Your task to perform on an android device: see tabs open on other devices in the chrome app Image 0: 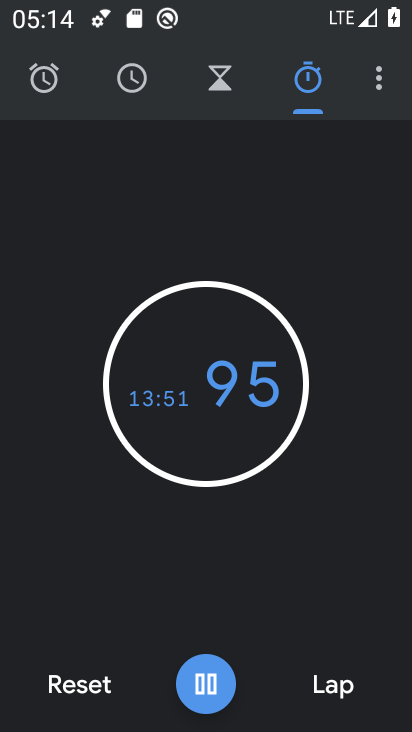
Step 0: press home button
Your task to perform on an android device: see tabs open on other devices in the chrome app Image 1: 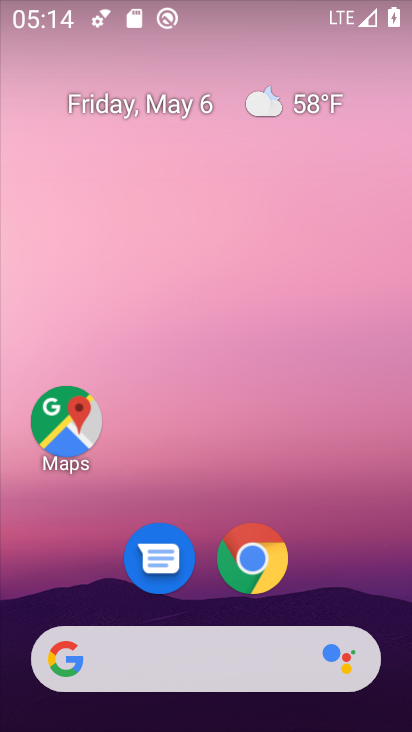
Step 1: click (262, 561)
Your task to perform on an android device: see tabs open on other devices in the chrome app Image 2: 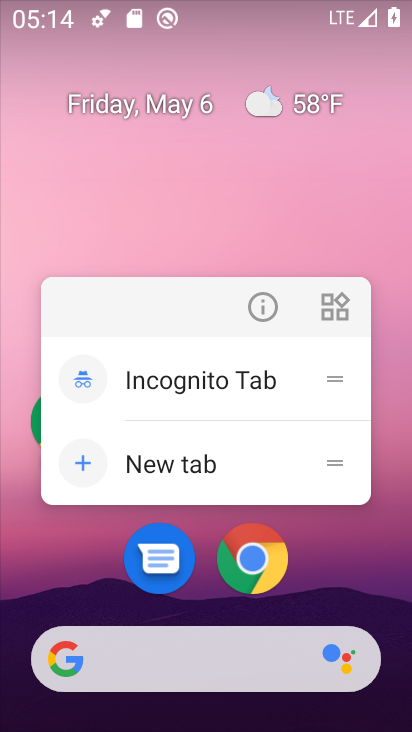
Step 2: click (262, 561)
Your task to perform on an android device: see tabs open on other devices in the chrome app Image 3: 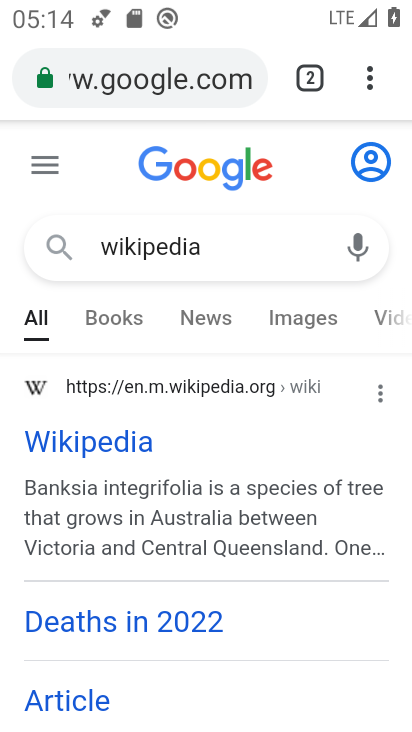
Step 3: task complete